Your task to perform on an android device: install app "Nova Launcher" Image 0: 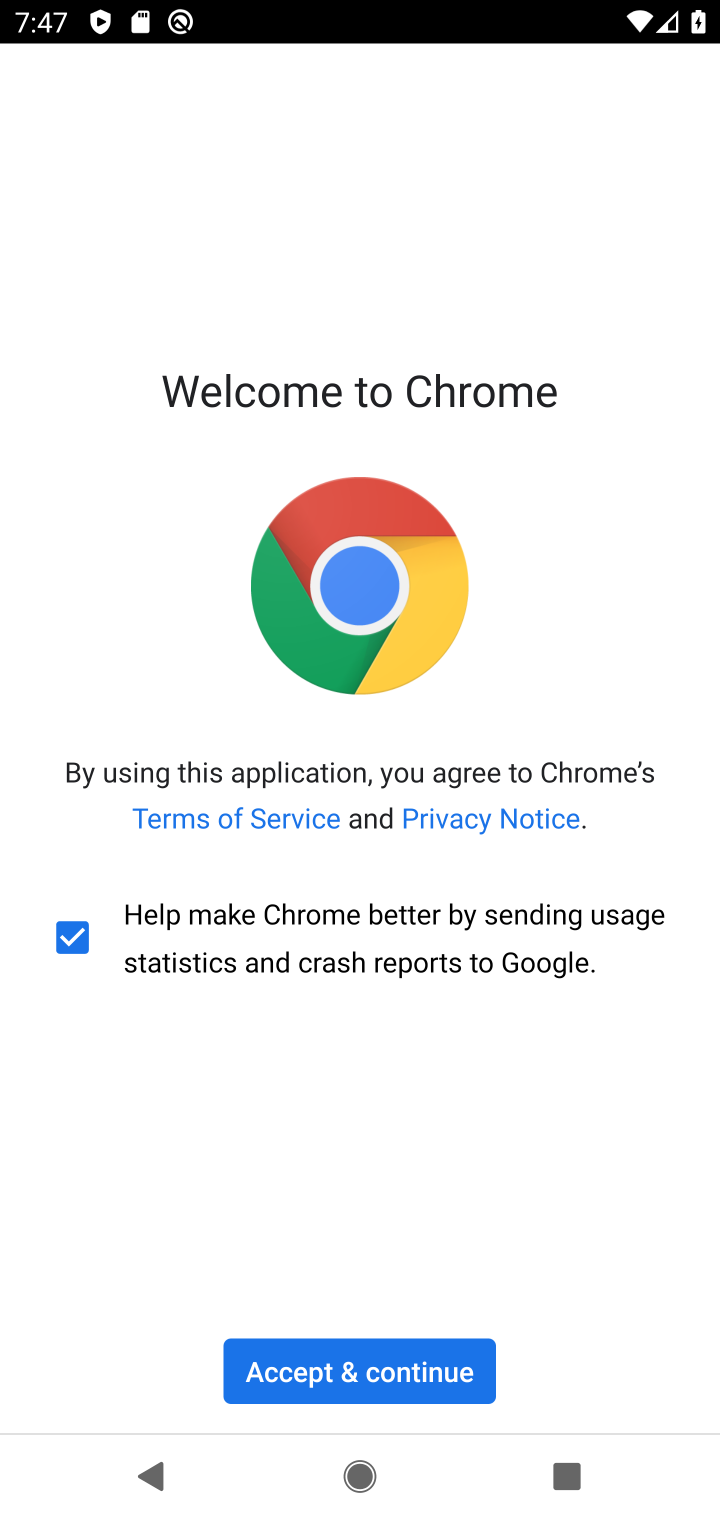
Step 0: press home button
Your task to perform on an android device: install app "Nova Launcher" Image 1: 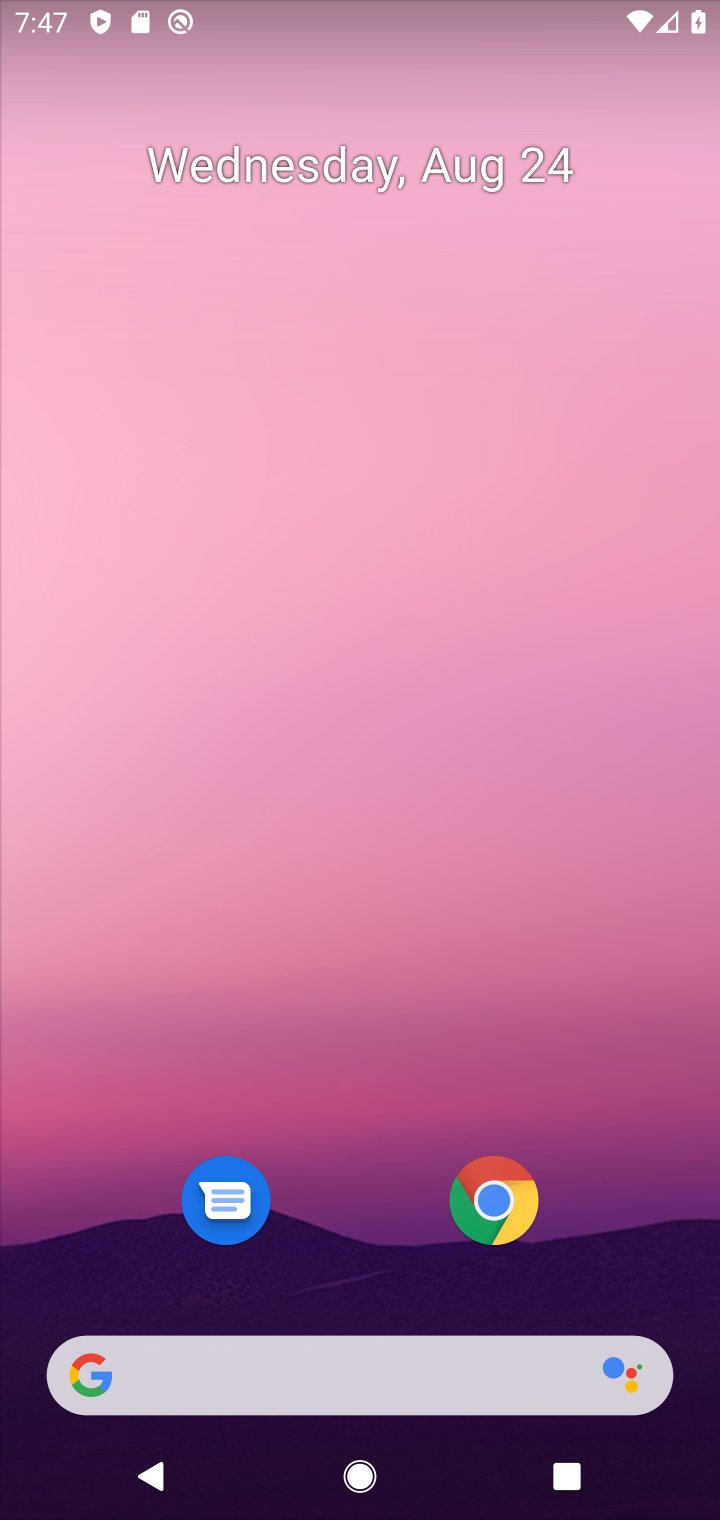
Step 1: drag from (314, 1145) to (385, 0)
Your task to perform on an android device: install app "Nova Launcher" Image 2: 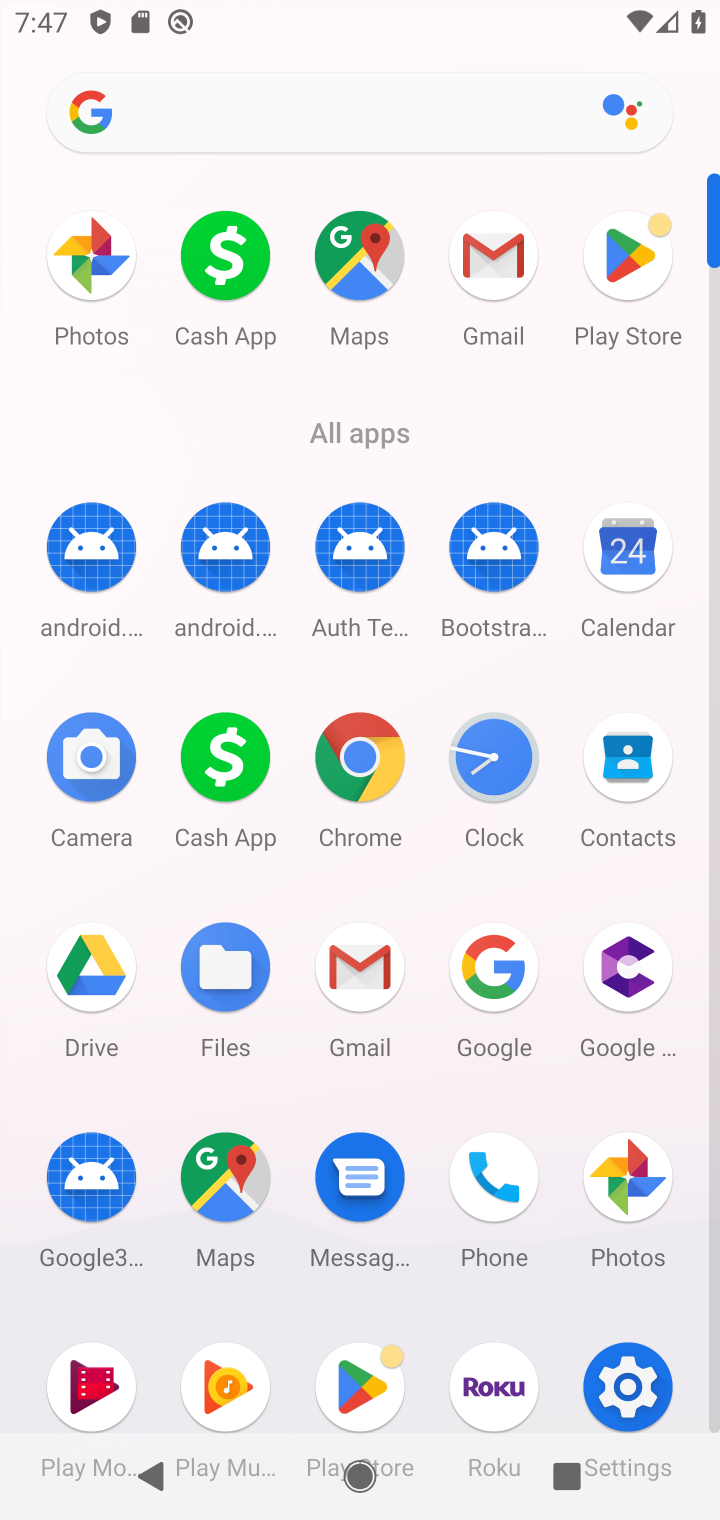
Step 2: click (642, 269)
Your task to perform on an android device: install app "Nova Launcher" Image 3: 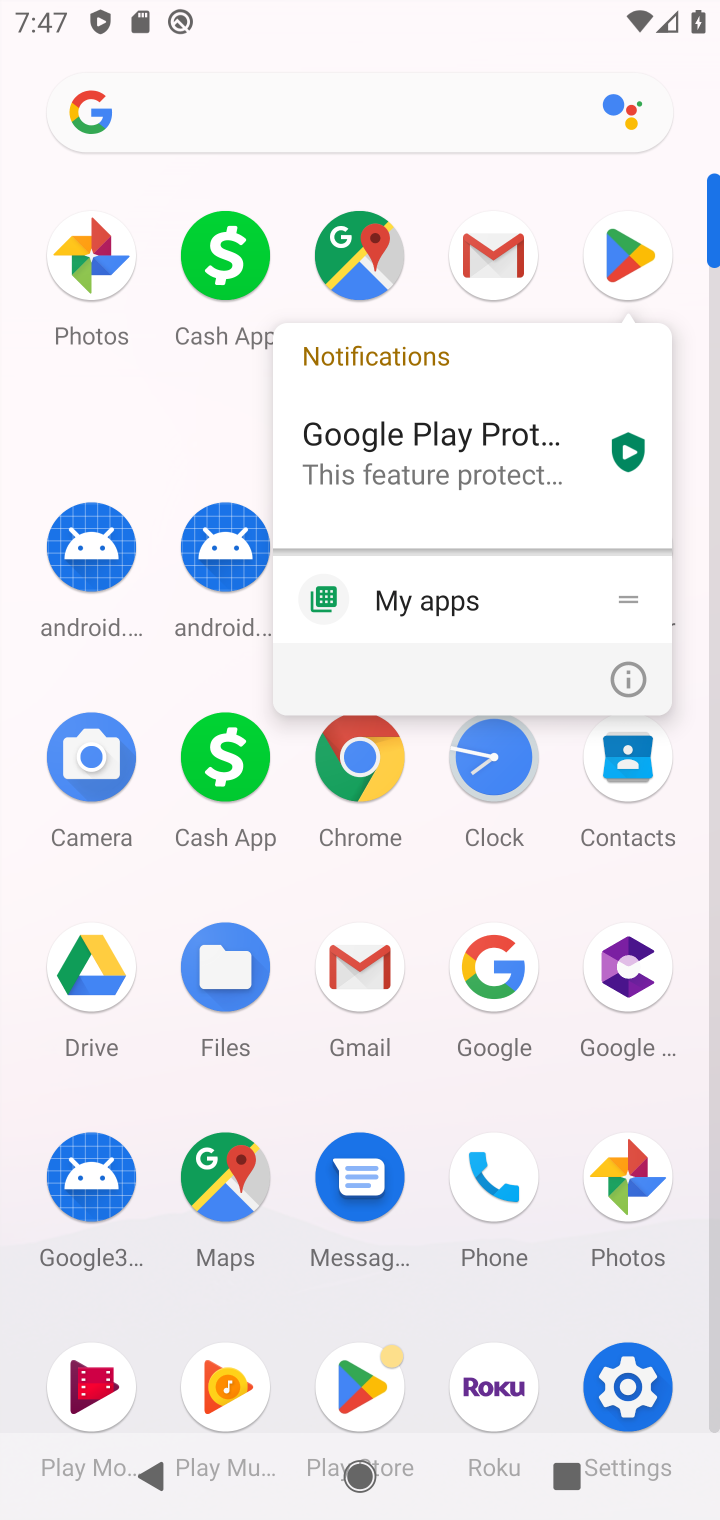
Step 3: click (634, 278)
Your task to perform on an android device: install app "Nova Launcher" Image 4: 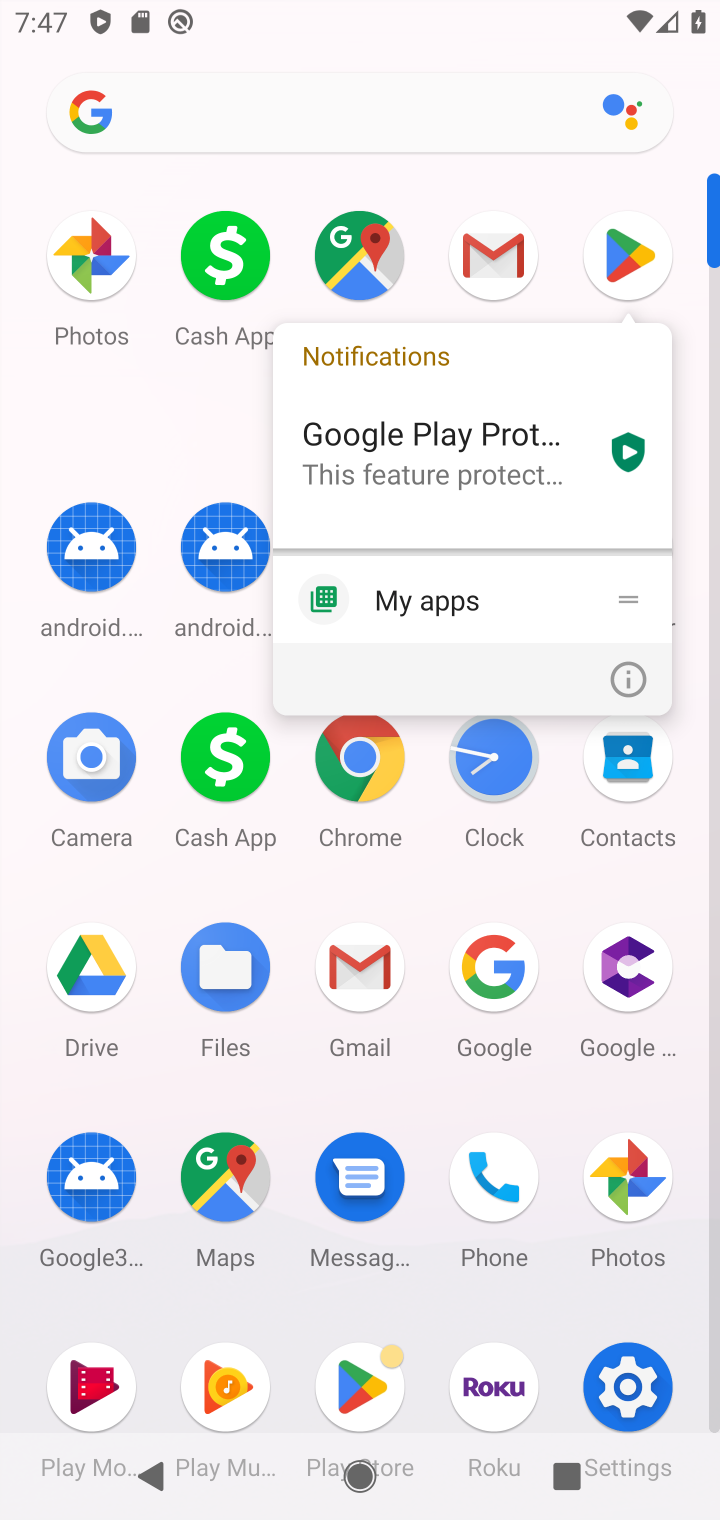
Step 4: click (607, 226)
Your task to perform on an android device: install app "Nova Launcher" Image 5: 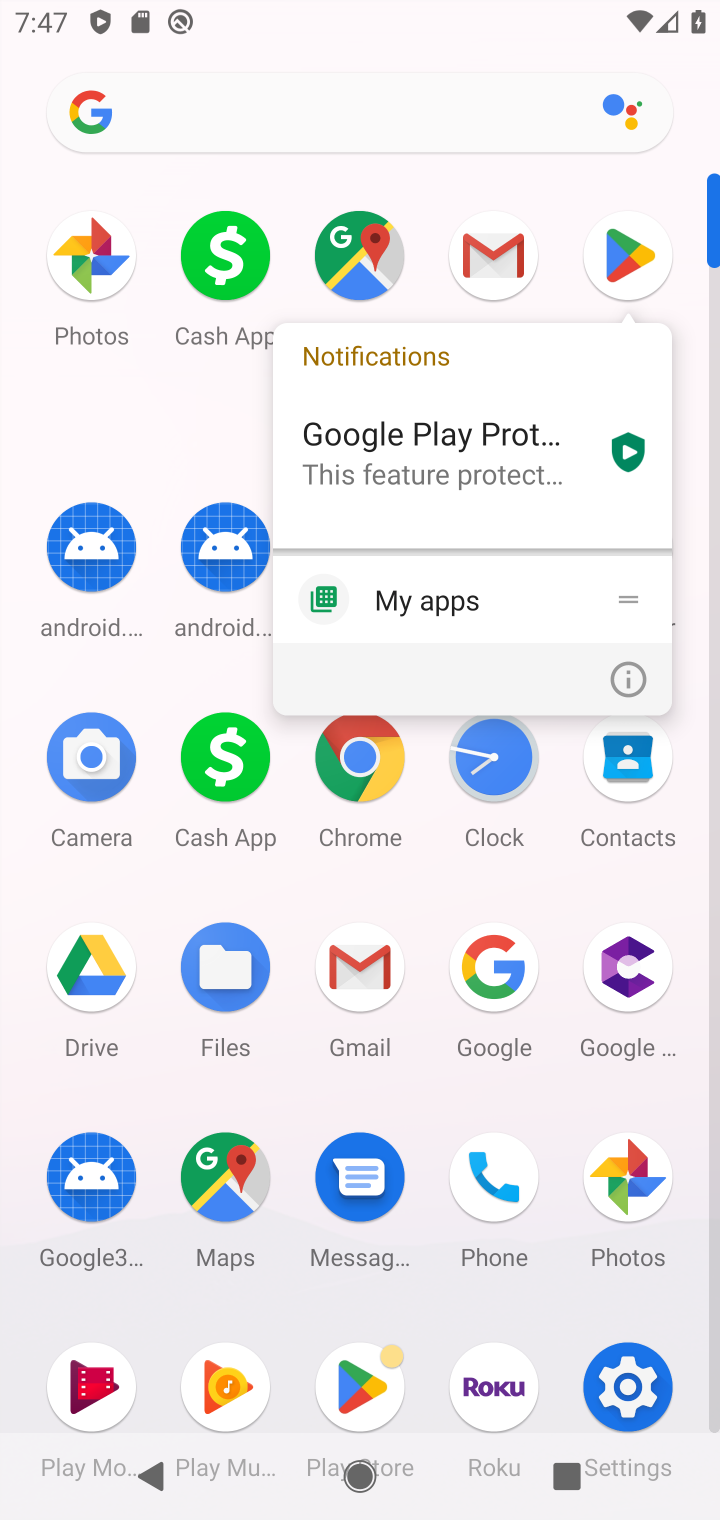
Step 5: click (649, 272)
Your task to perform on an android device: install app "Nova Launcher" Image 6: 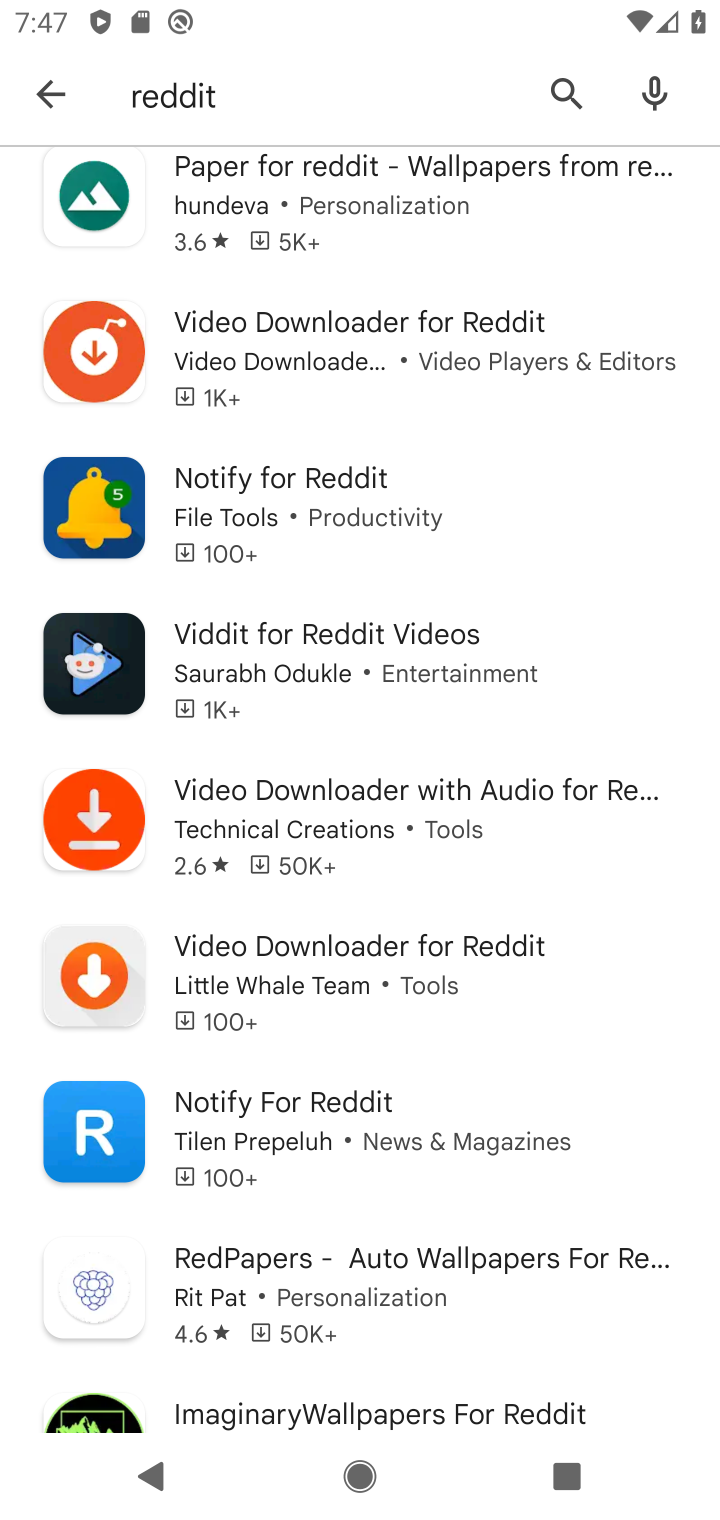
Step 6: click (242, 102)
Your task to perform on an android device: install app "Nova Launcher" Image 7: 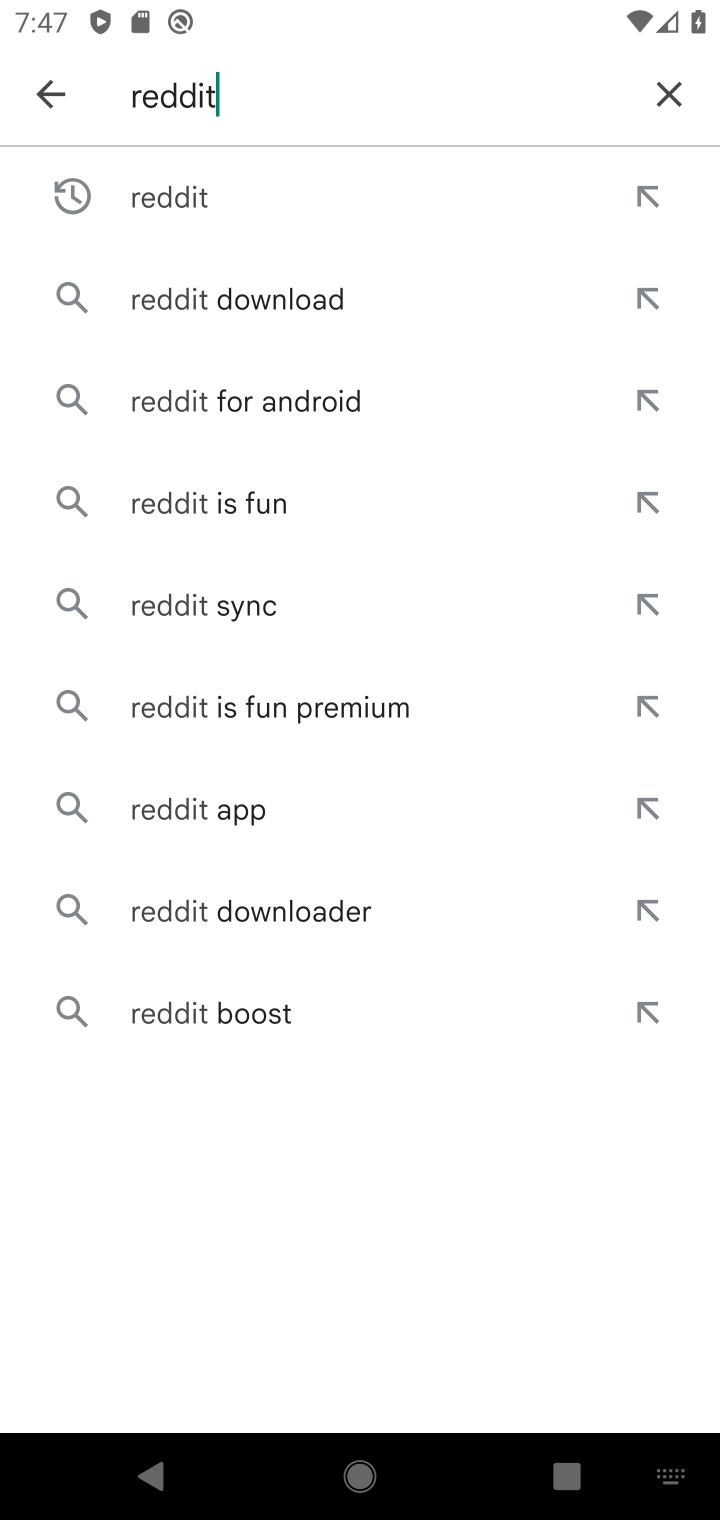
Step 7: click (664, 79)
Your task to perform on an android device: install app "Nova Launcher" Image 8: 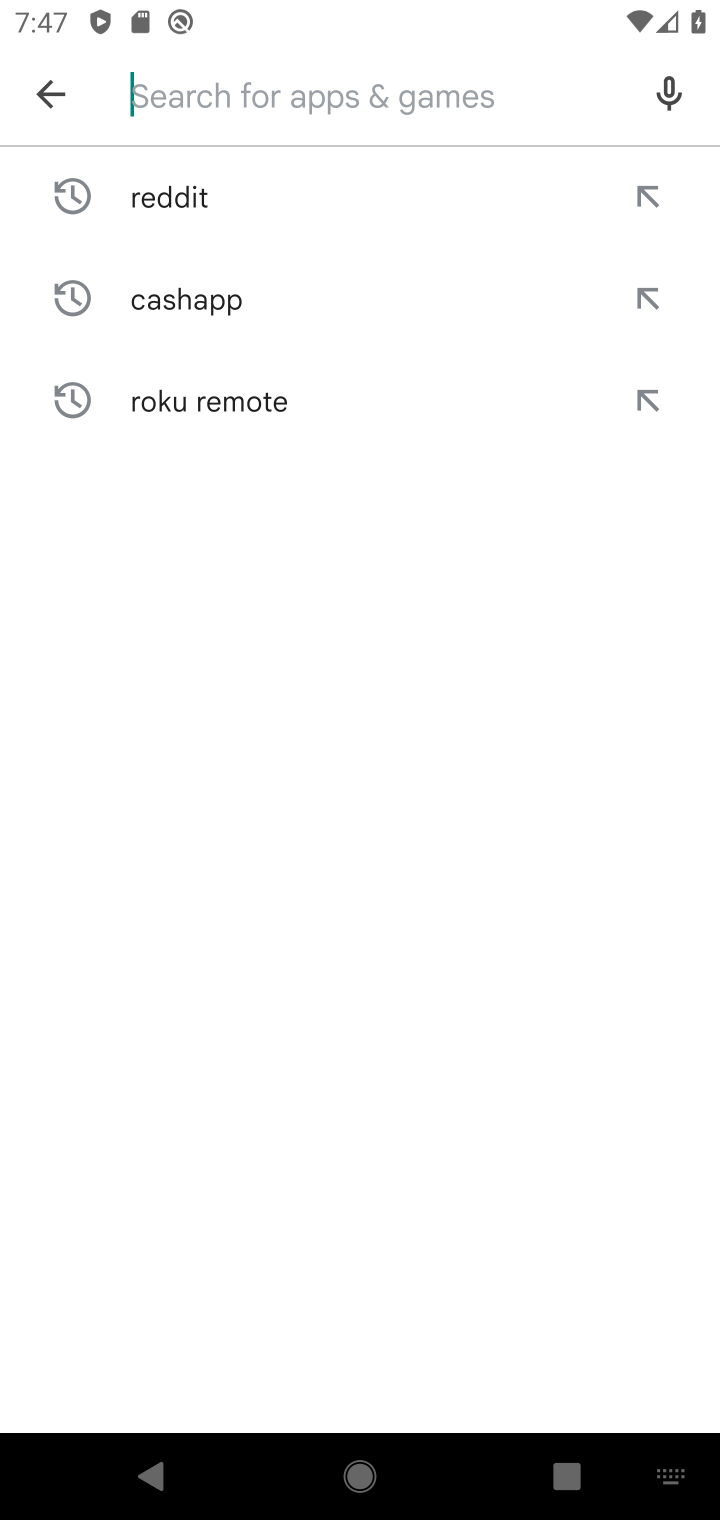
Step 8: type "Nova launcher"
Your task to perform on an android device: install app "Nova Launcher" Image 9: 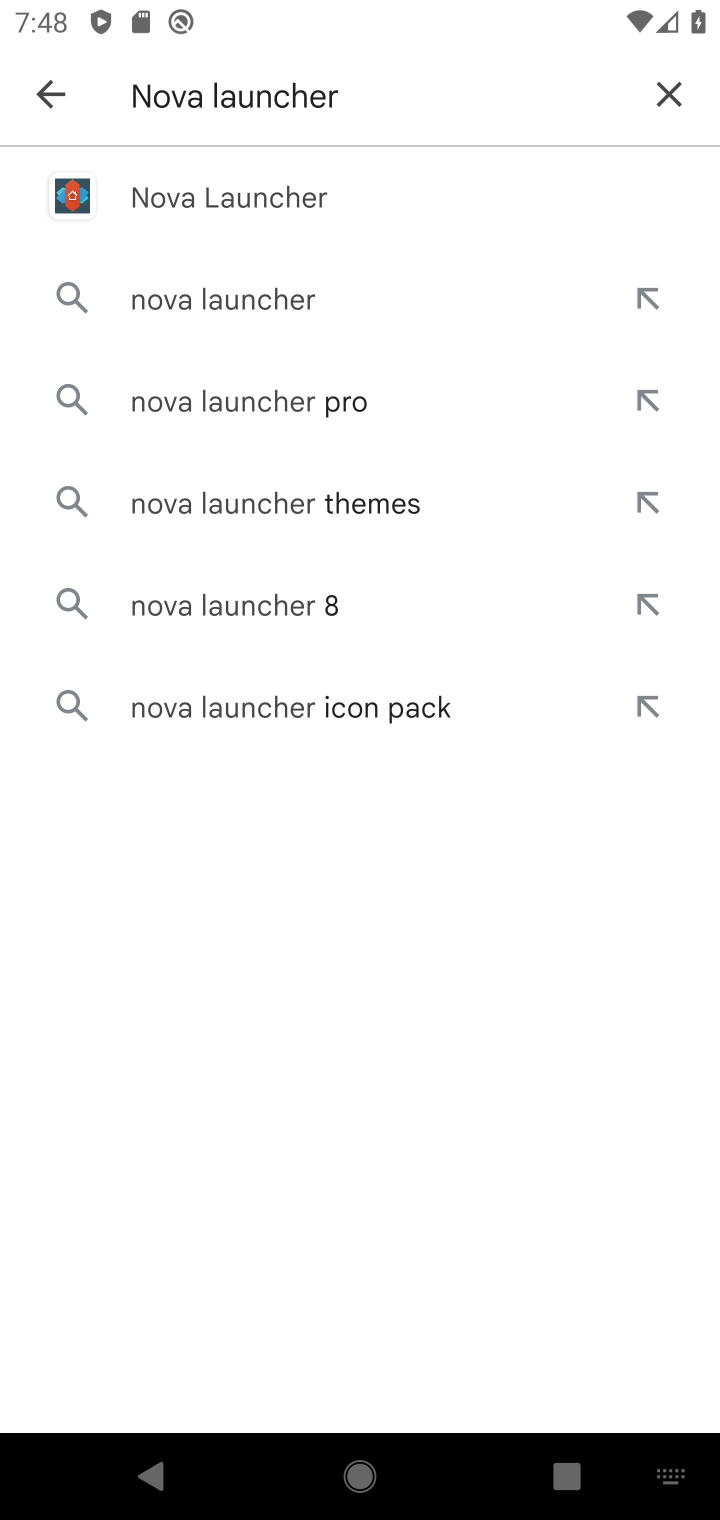
Step 9: click (317, 208)
Your task to perform on an android device: install app "Nova Launcher" Image 10: 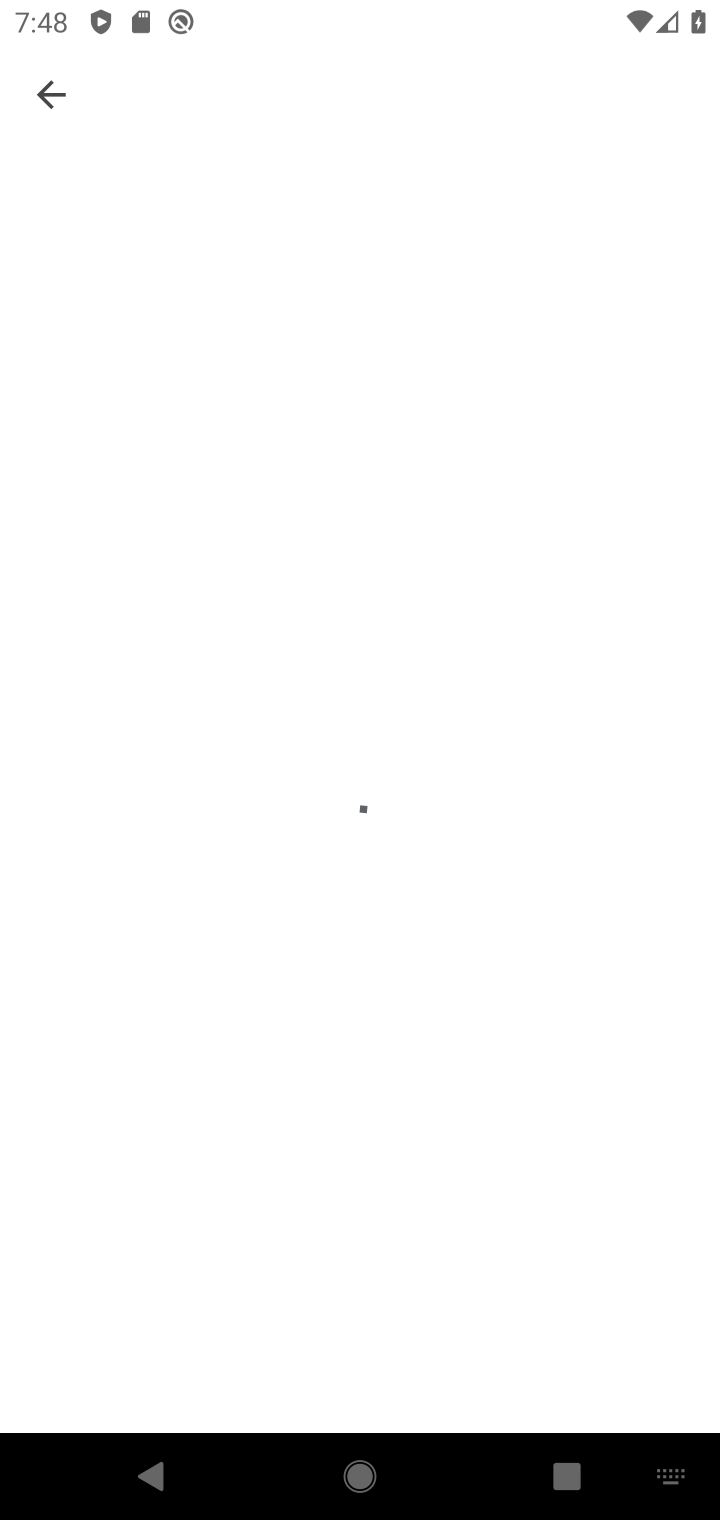
Step 10: click (187, 188)
Your task to perform on an android device: install app "Nova Launcher" Image 11: 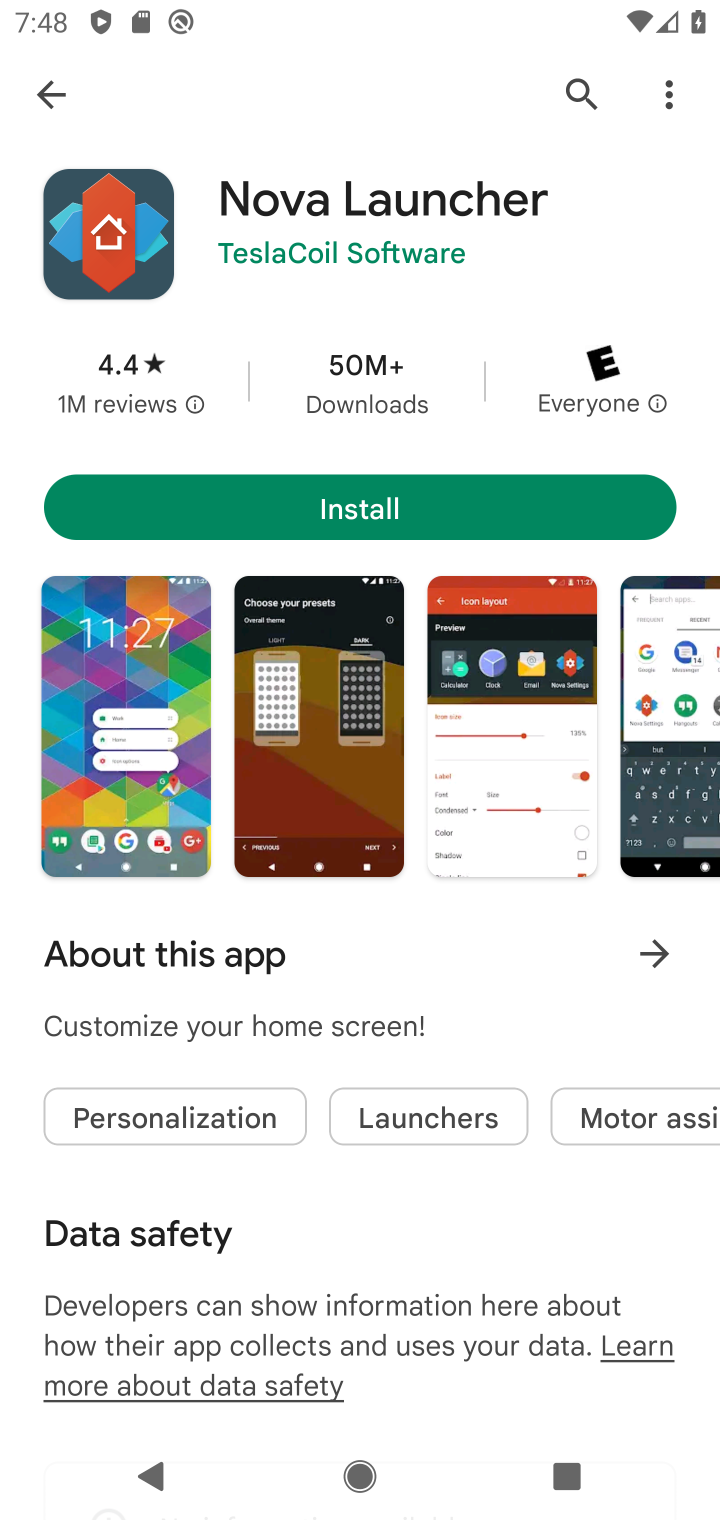
Step 11: click (371, 504)
Your task to perform on an android device: install app "Nova Launcher" Image 12: 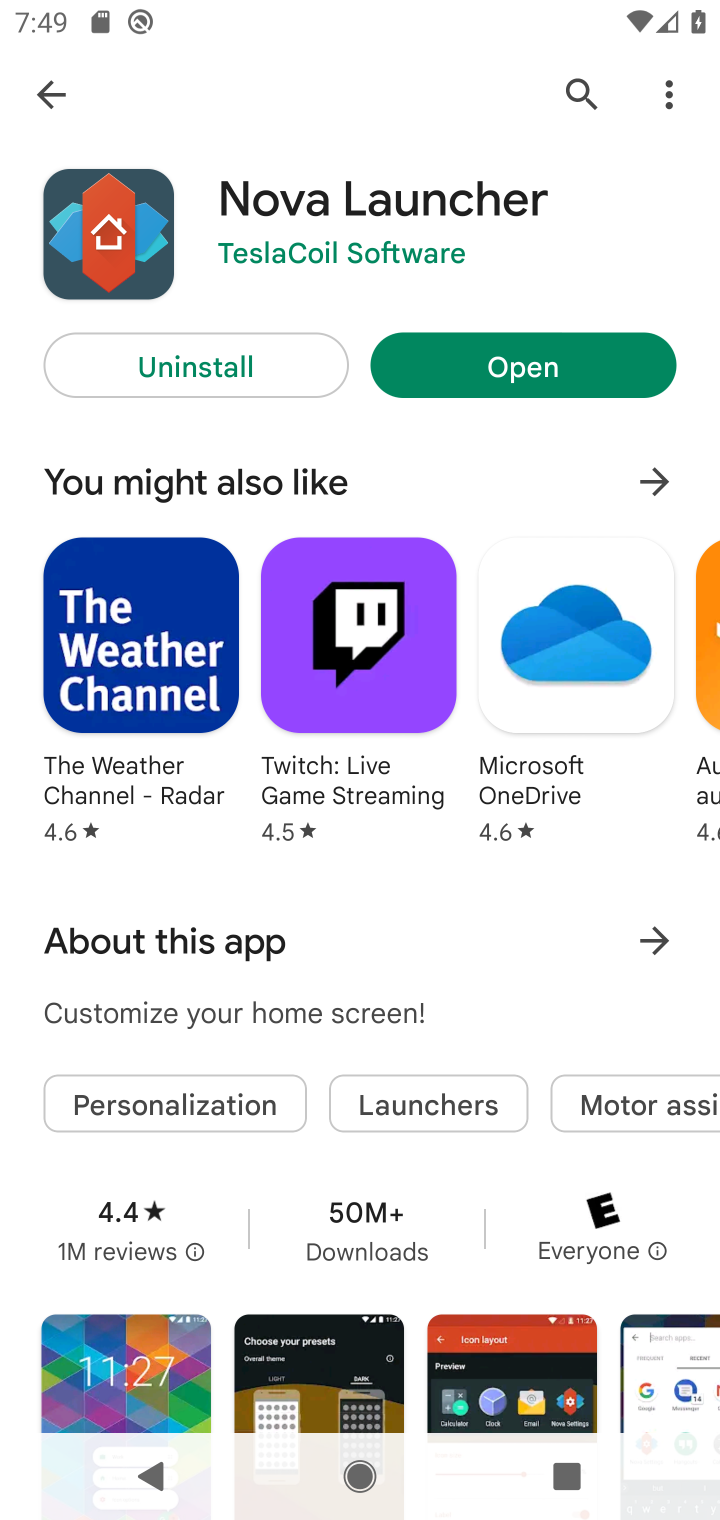
Step 12: task complete